Your task to perform on an android device: Go to Wikipedia Image 0: 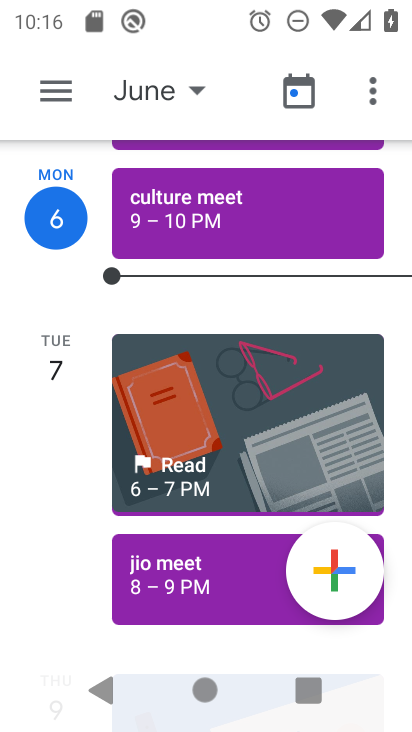
Step 0: press home button
Your task to perform on an android device: Go to Wikipedia Image 1: 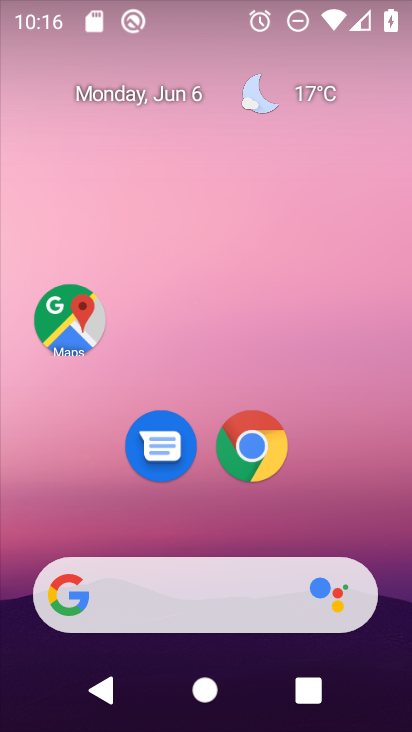
Step 1: click (255, 464)
Your task to perform on an android device: Go to Wikipedia Image 2: 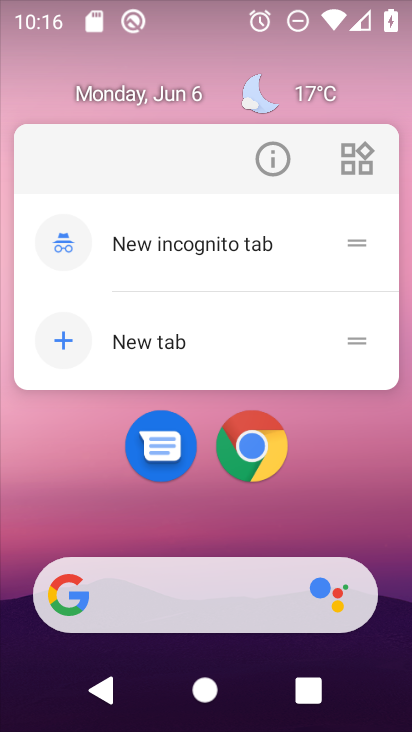
Step 2: click (242, 438)
Your task to perform on an android device: Go to Wikipedia Image 3: 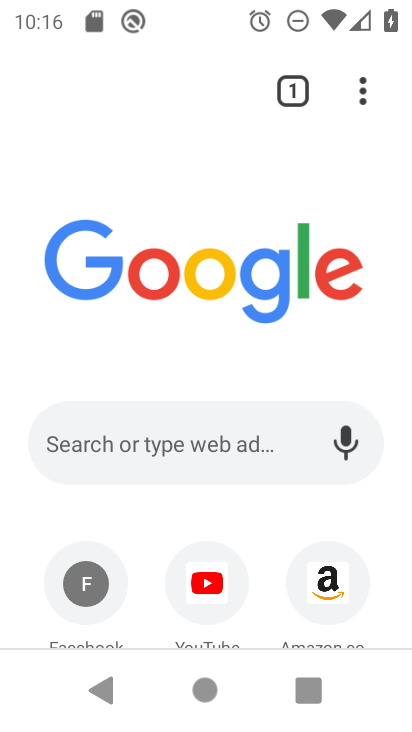
Step 3: drag from (143, 568) to (187, 69)
Your task to perform on an android device: Go to Wikipedia Image 4: 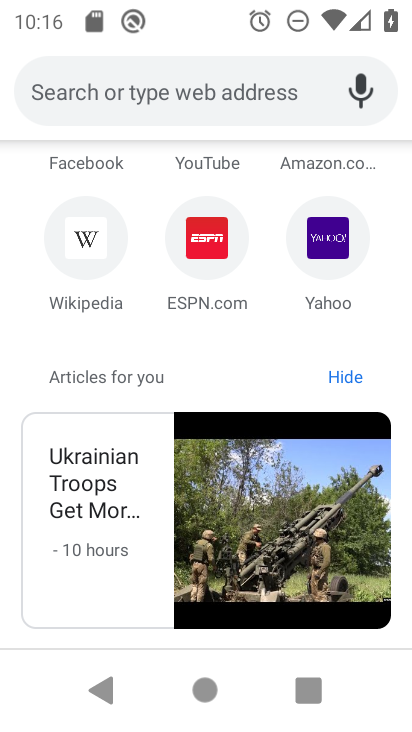
Step 4: drag from (286, 613) to (235, 229)
Your task to perform on an android device: Go to Wikipedia Image 5: 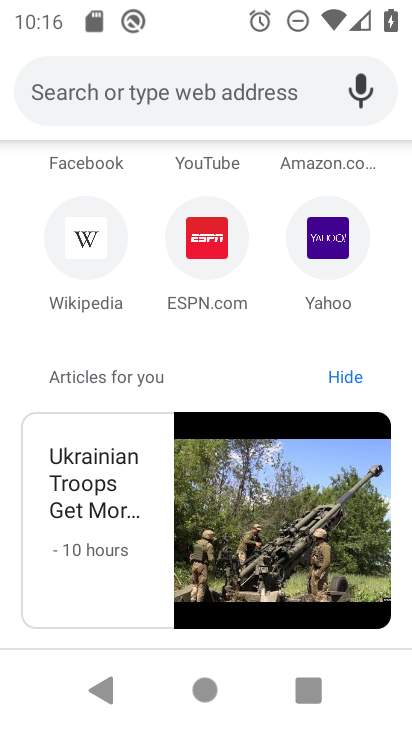
Step 5: click (79, 234)
Your task to perform on an android device: Go to Wikipedia Image 6: 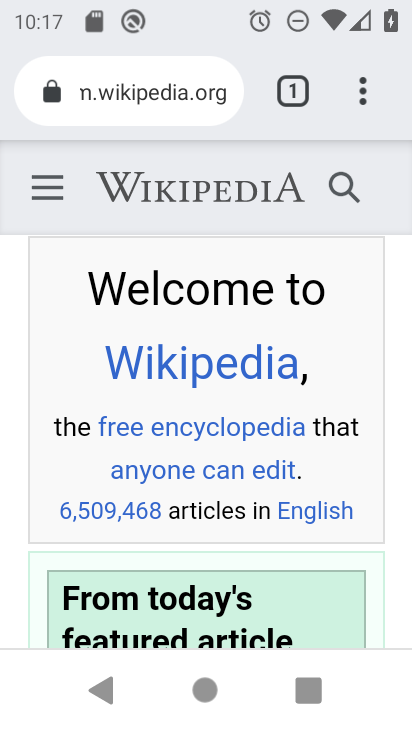
Step 6: task complete